Your task to perform on an android device: turn on priority inbox in the gmail app Image 0: 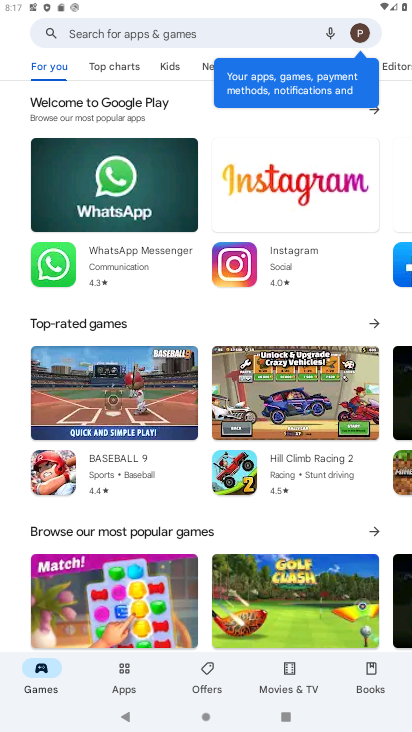
Step 0: press home button
Your task to perform on an android device: turn on priority inbox in the gmail app Image 1: 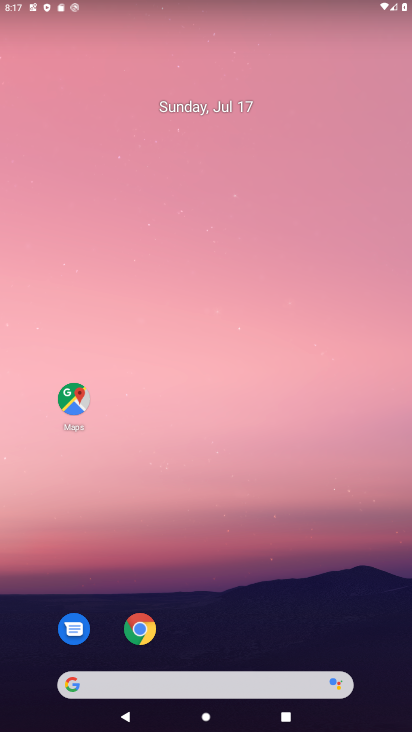
Step 1: drag from (241, 718) to (222, 461)
Your task to perform on an android device: turn on priority inbox in the gmail app Image 2: 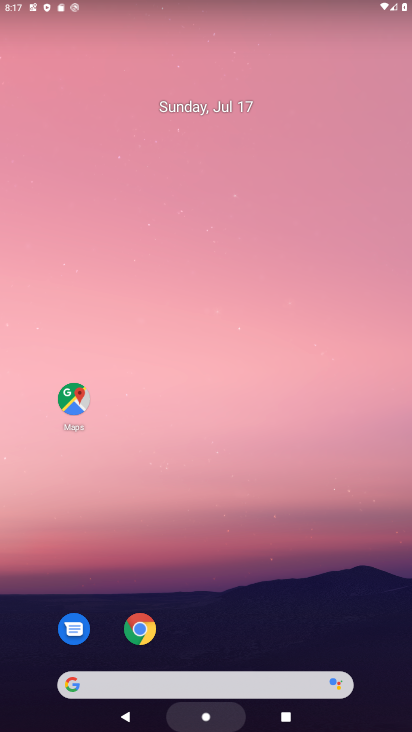
Step 2: click (233, 102)
Your task to perform on an android device: turn on priority inbox in the gmail app Image 3: 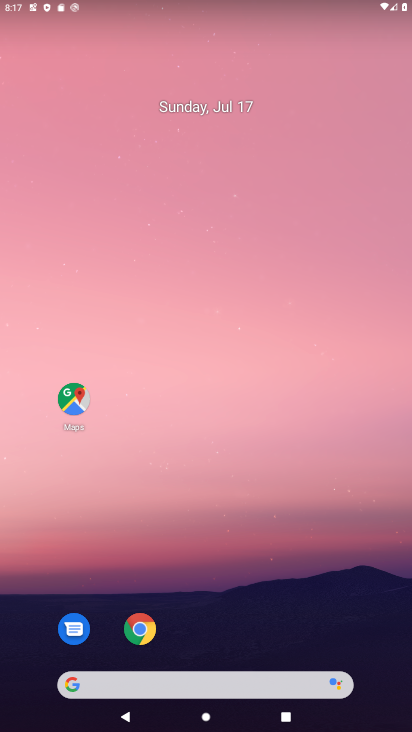
Step 3: drag from (234, 629) to (232, 73)
Your task to perform on an android device: turn on priority inbox in the gmail app Image 4: 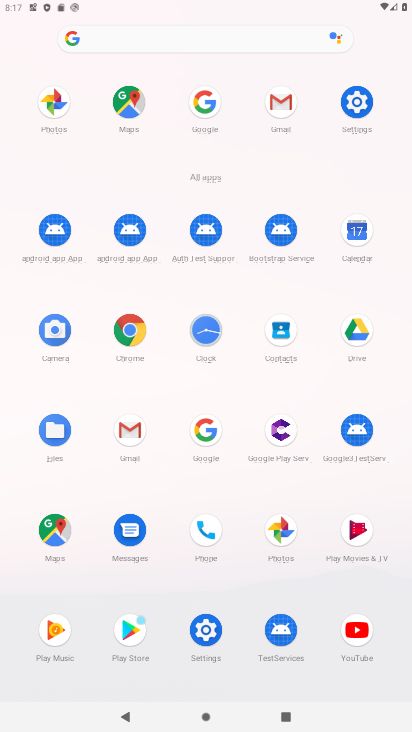
Step 4: click (130, 435)
Your task to perform on an android device: turn on priority inbox in the gmail app Image 5: 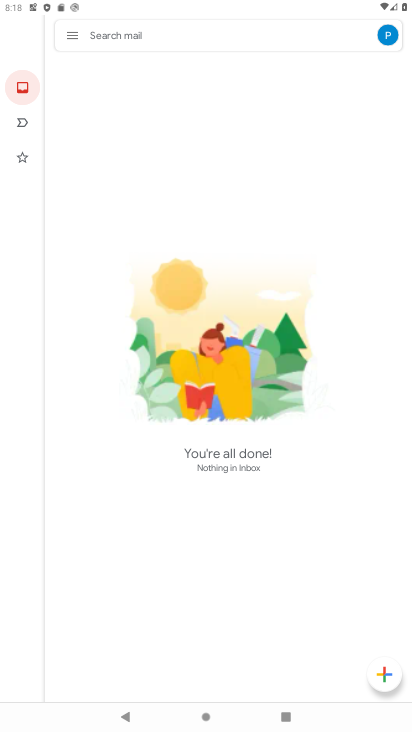
Step 5: click (70, 32)
Your task to perform on an android device: turn on priority inbox in the gmail app Image 6: 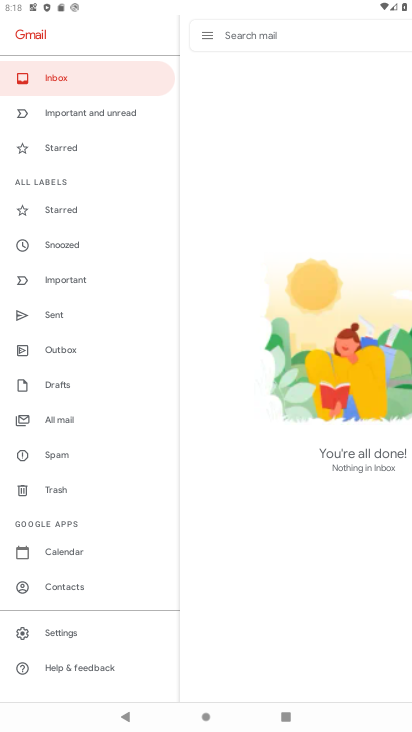
Step 6: click (66, 630)
Your task to perform on an android device: turn on priority inbox in the gmail app Image 7: 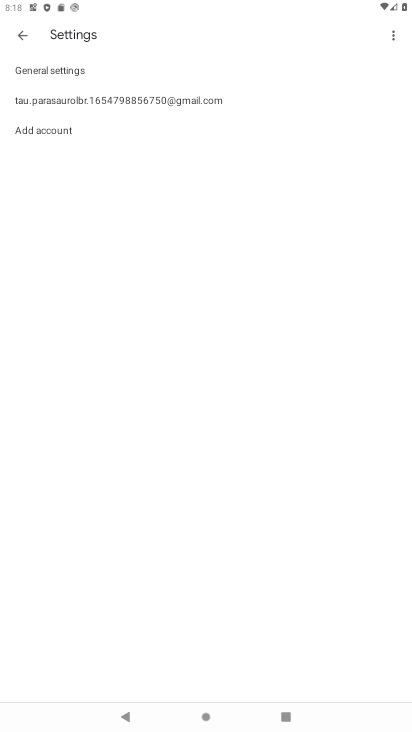
Step 7: click (118, 95)
Your task to perform on an android device: turn on priority inbox in the gmail app Image 8: 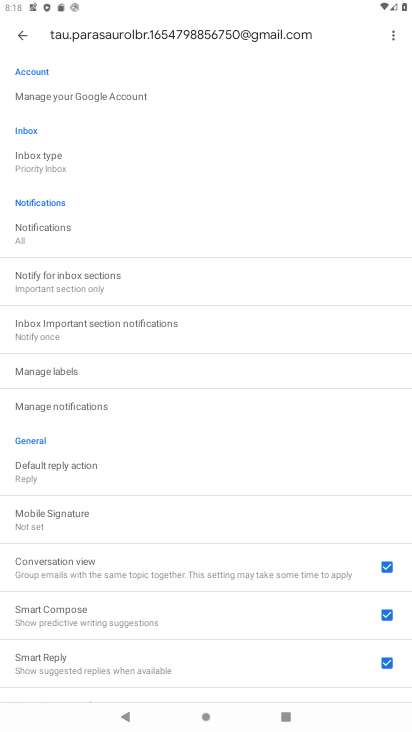
Step 8: task complete